Your task to perform on an android device: toggle notifications settings in the gmail app Image 0: 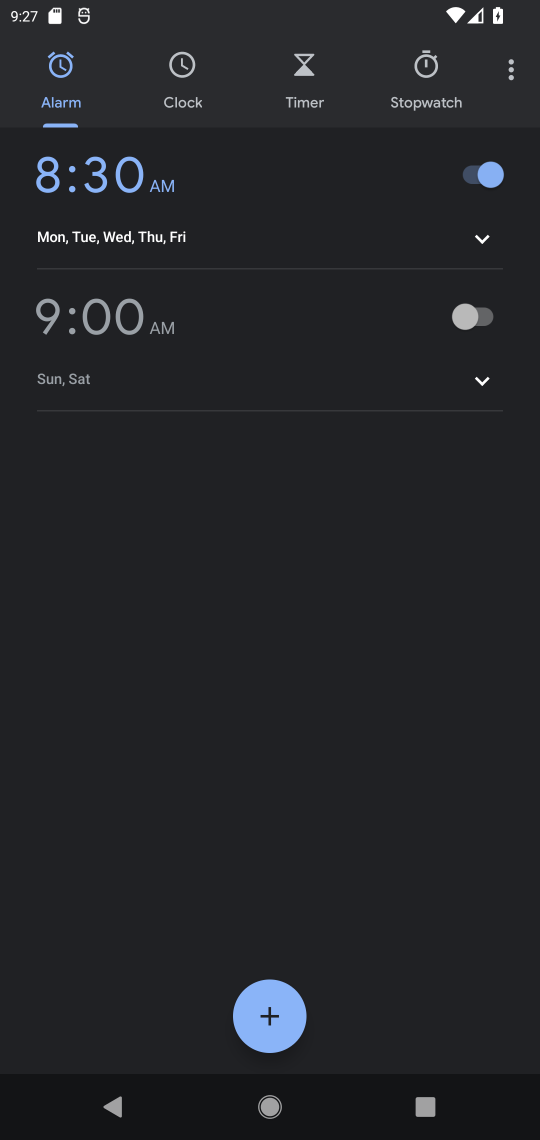
Step 0: press home button
Your task to perform on an android device: toggle notifications settings in the gmail app Image 1: 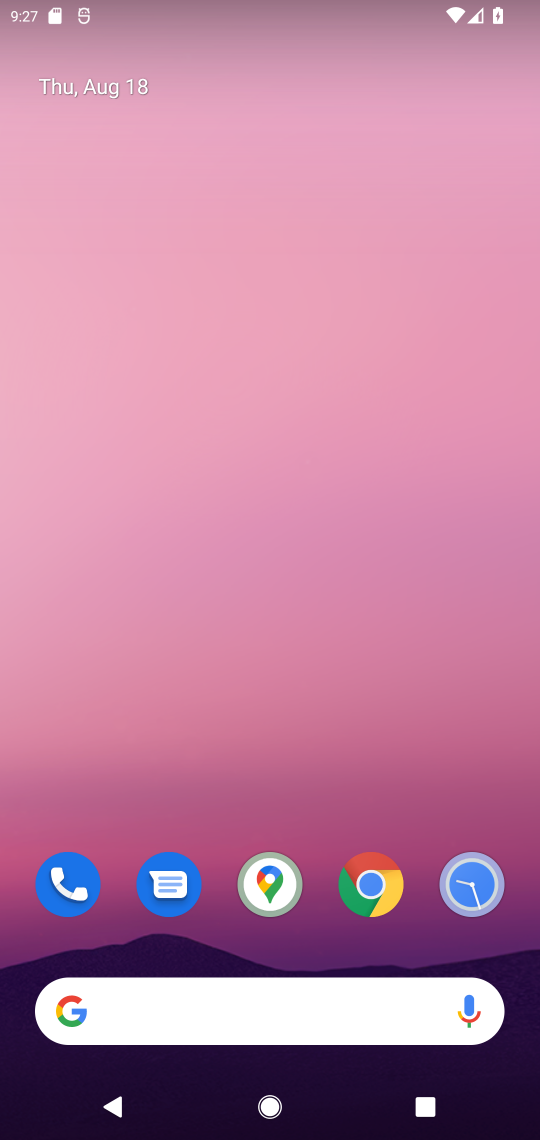
Step 1: drag from (201, 942) to (436, 91)
Your task to perform on an android device: toggle notifications settings in the gmail app Image 2: 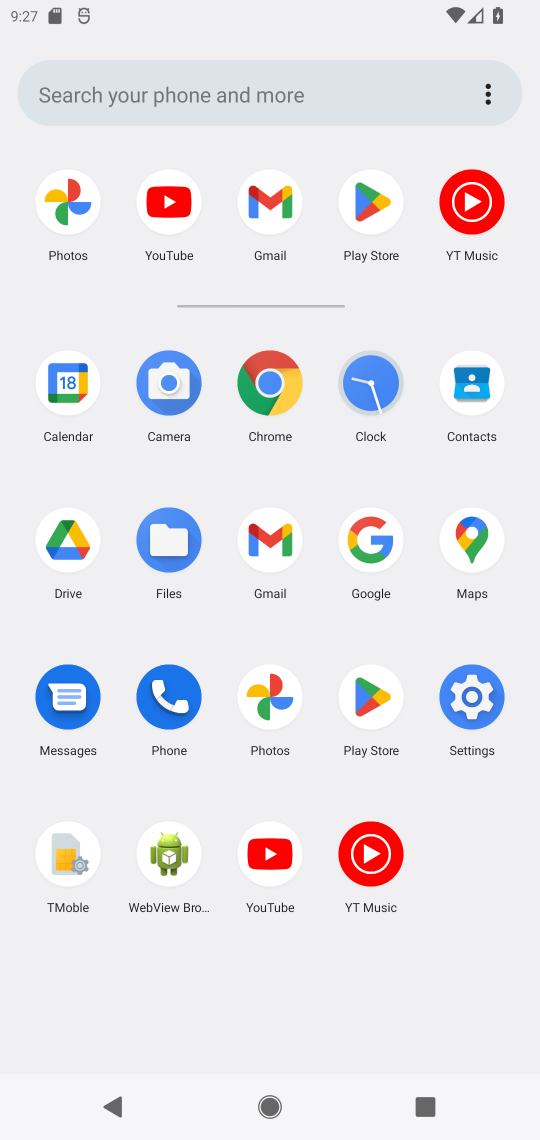
Step 2: click (485, 713)
Your task to perform on an android device: toggle notifications settings in the gmail app Image 3: 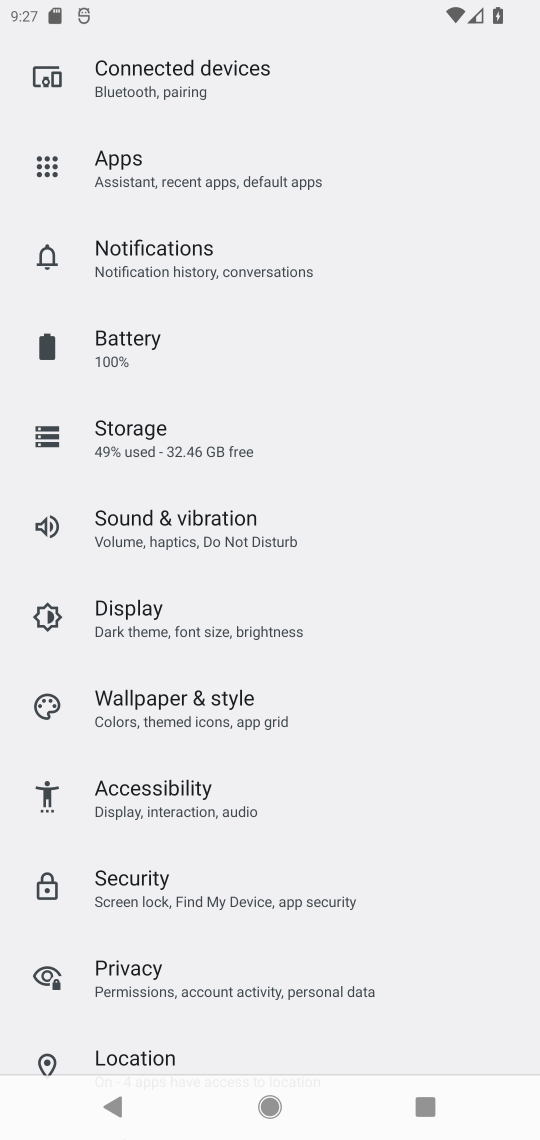
Step 3: click (206, 259)
Your task to perform on an android device: toggle notifications settings in the gmail app Image 4: 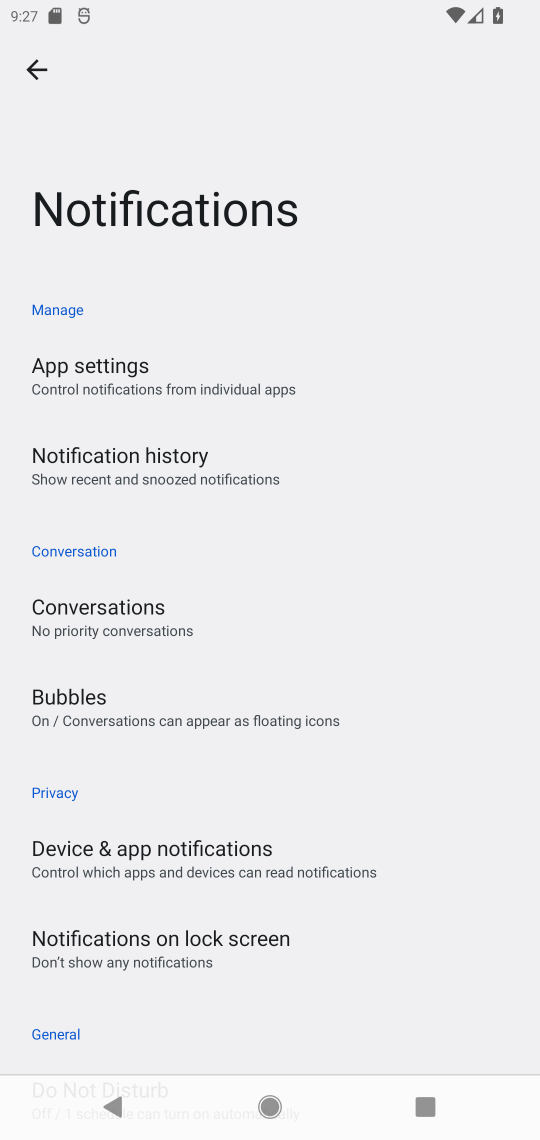
Step 4: drag from (179, 995) to (303, 164)
Your task to perform on an android device: toggle notifications settings in the gmail app Image 5: 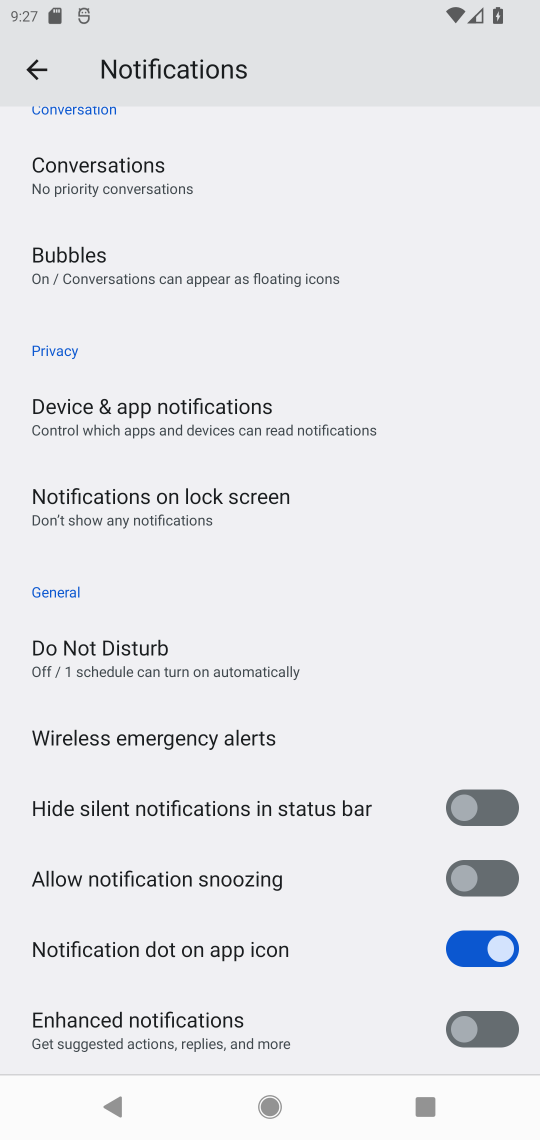
Step 5: drag from (312, 987) to (443, 54)
Your task to perform on an android device: toggle notifications settings in the gmail app Image 6: 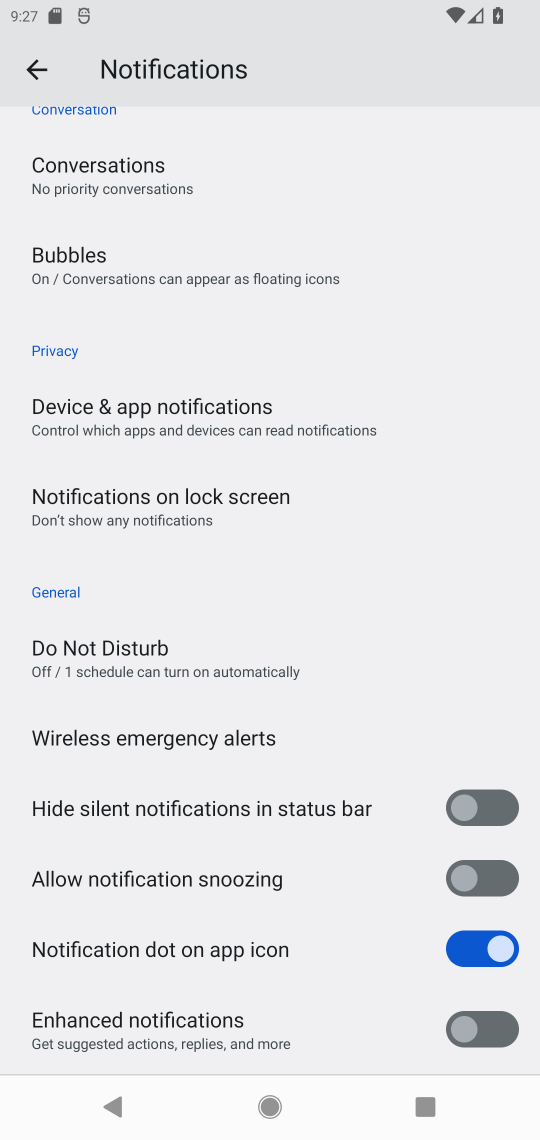
Step 6: drag from (292, 909) to (118, 56)
Your task to perform on an android device: toggle notifications settings in the gmail app Image 7: 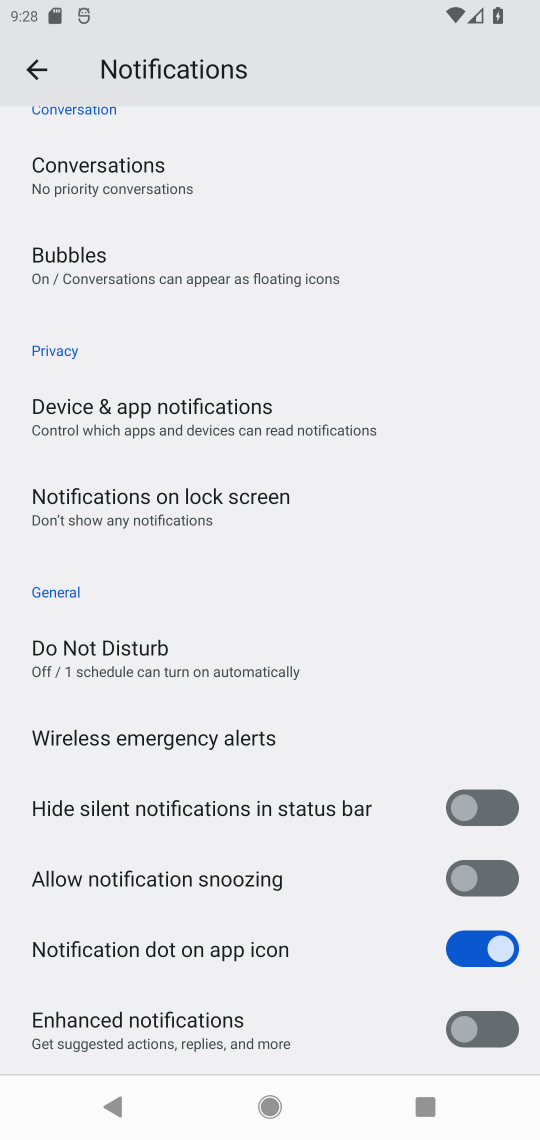
Step 7: click (146, 508)
Your task to perform on an android device: toggle notifications settings in the gmail app Image 8: 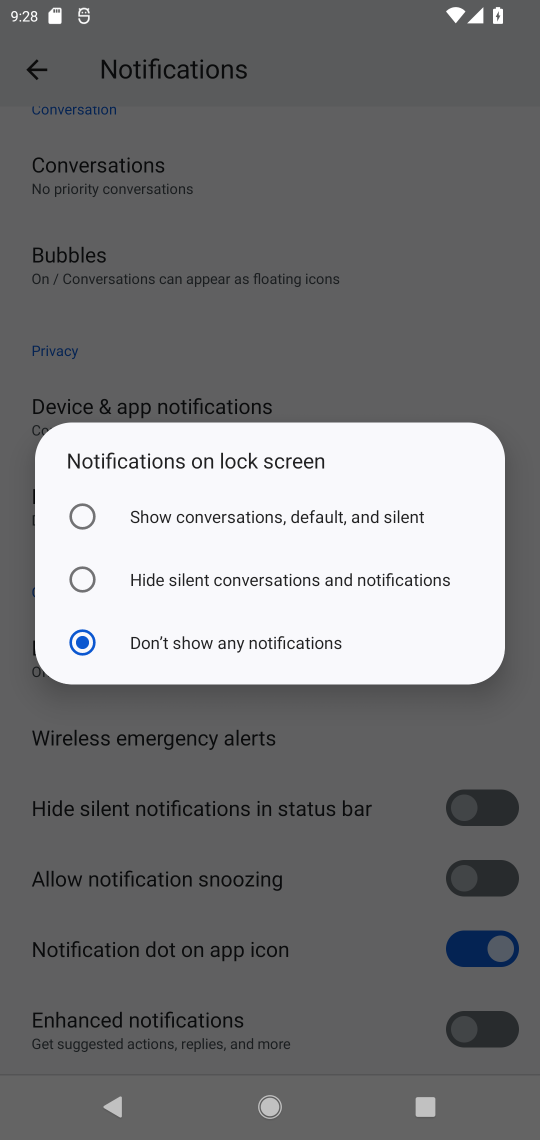
Step 8: click (229, 702)
Your task to perform on an android device: toggle notifications settings in the gmail app Image 9: 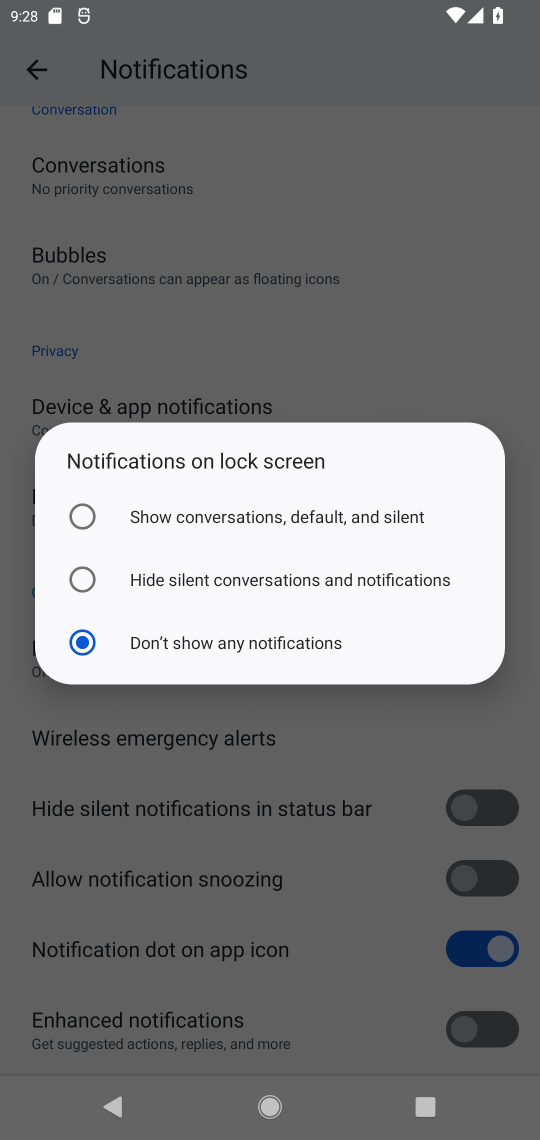
Step 9: click (388, 757)
Your task to perform on an android device: toggle notifications settings in the gmail app Image 10: 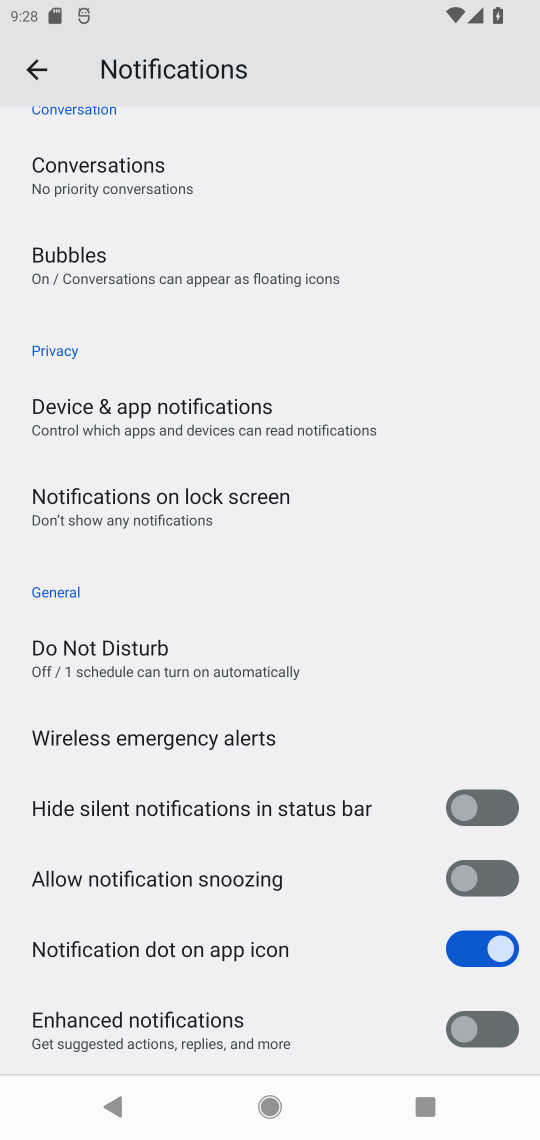
Step 10: click (388, 757)
Your task to perform on an android device: toggle notifications settings in the gmail app Image 11: 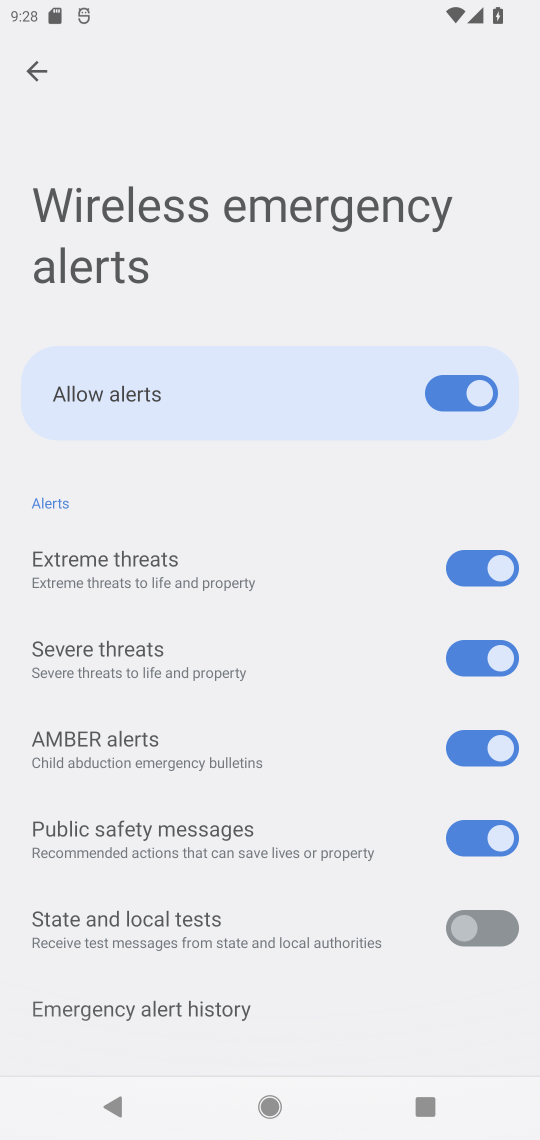
Step 11: press back button
Your task to perform on an android device: toggle notifications settings in the gmail app Image 12: 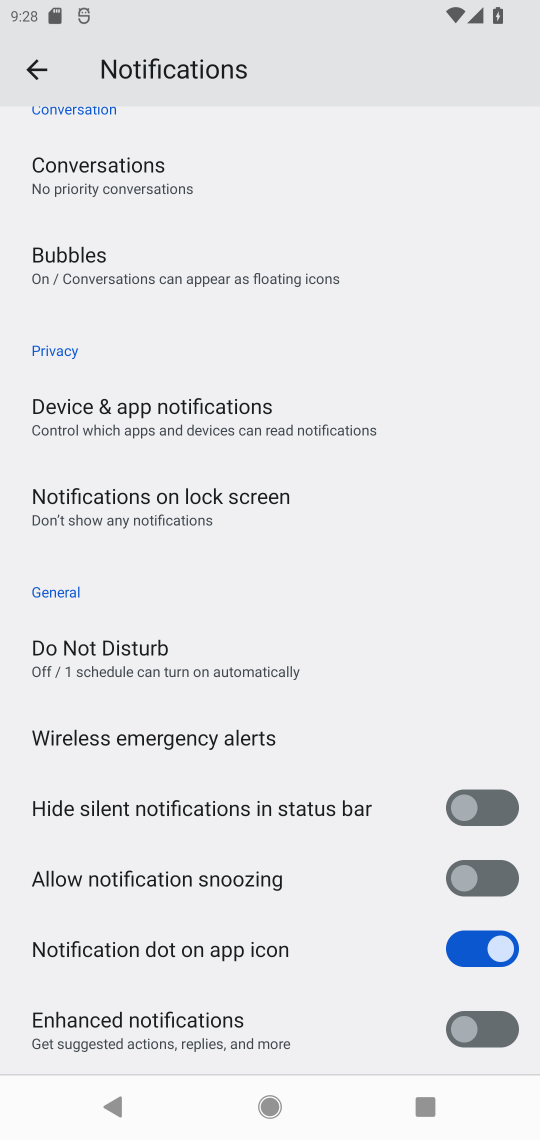
Step 12: drag from (345, 192) to (334, 1077)
Your task to perform on an android device: toggle notifications settings in the gmail app Image 13: 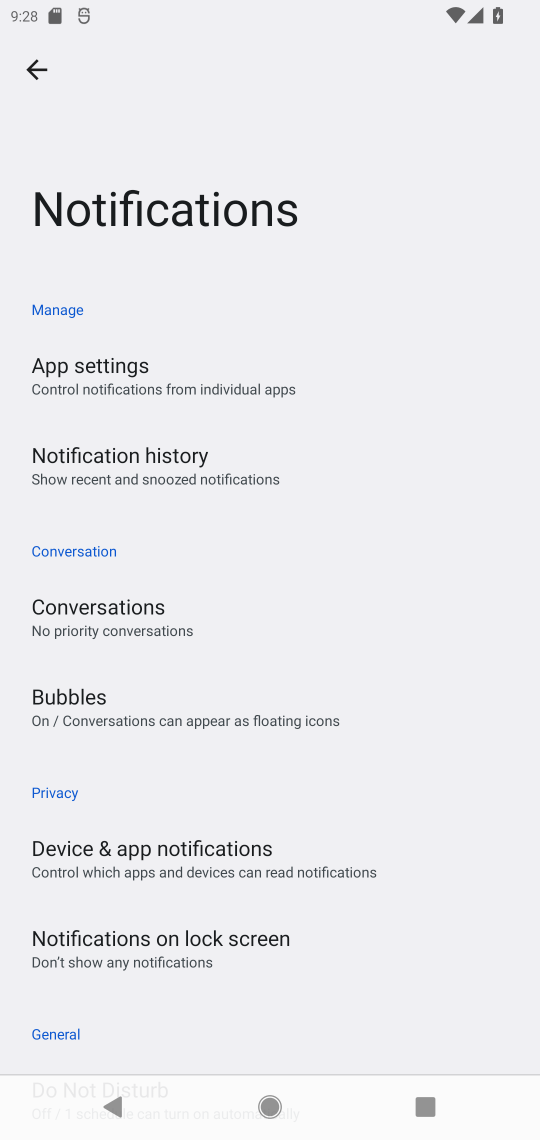
Step 13: drag from (292, 295) to (325, 661)
Your task to perform on an android device: toggle notifications settings in the gmail app Image 14: 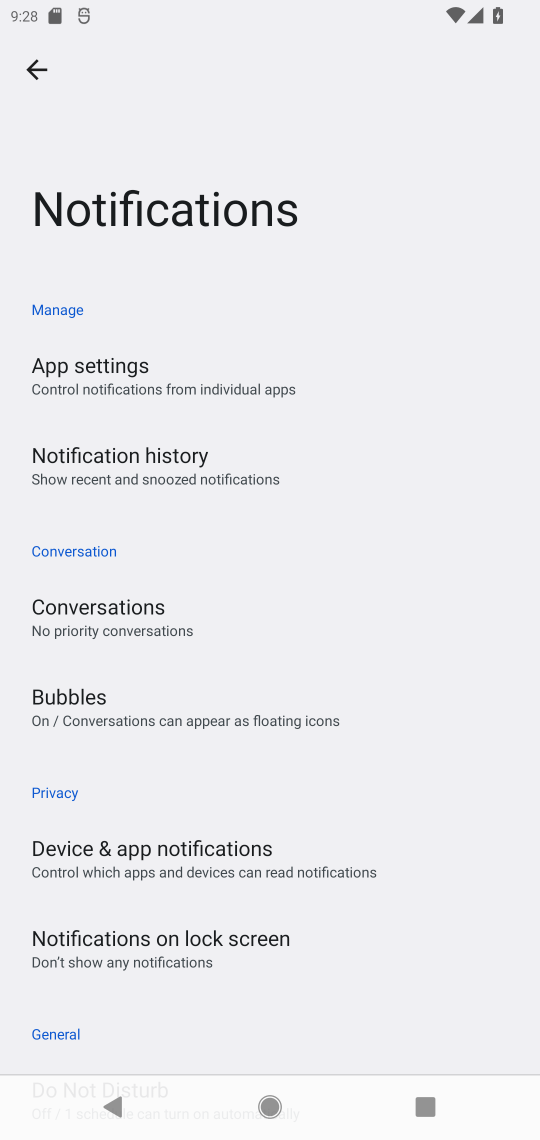
Step 14: click (145, 386)
Your task to perform on an android device: toggle notifications settings in the gmail app Image 15: 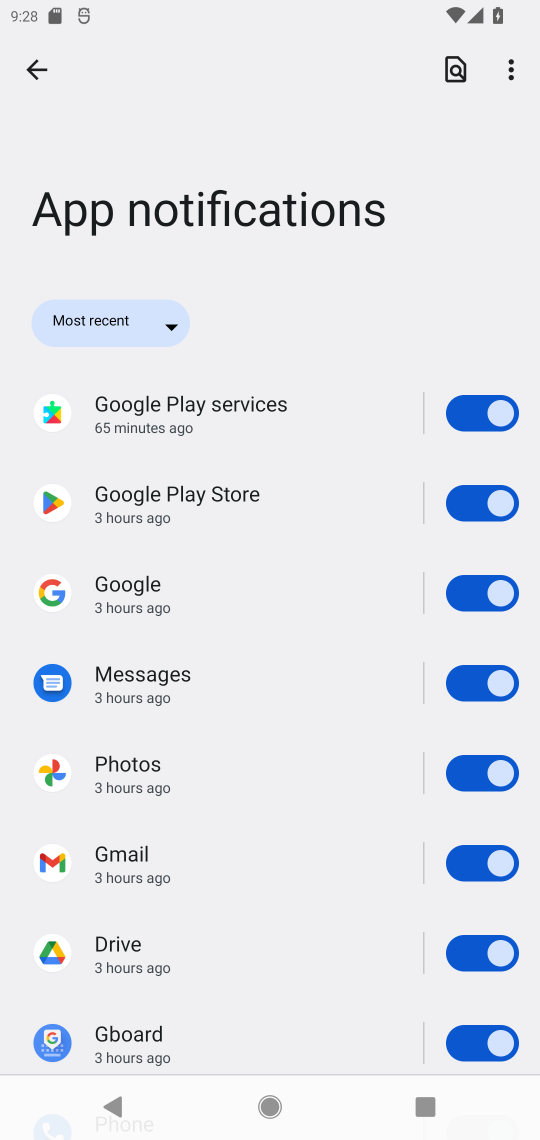
Step 15: click (489, 867)
Your task to perform on an android device: toggle notifications settings in the gmail app Image 16: 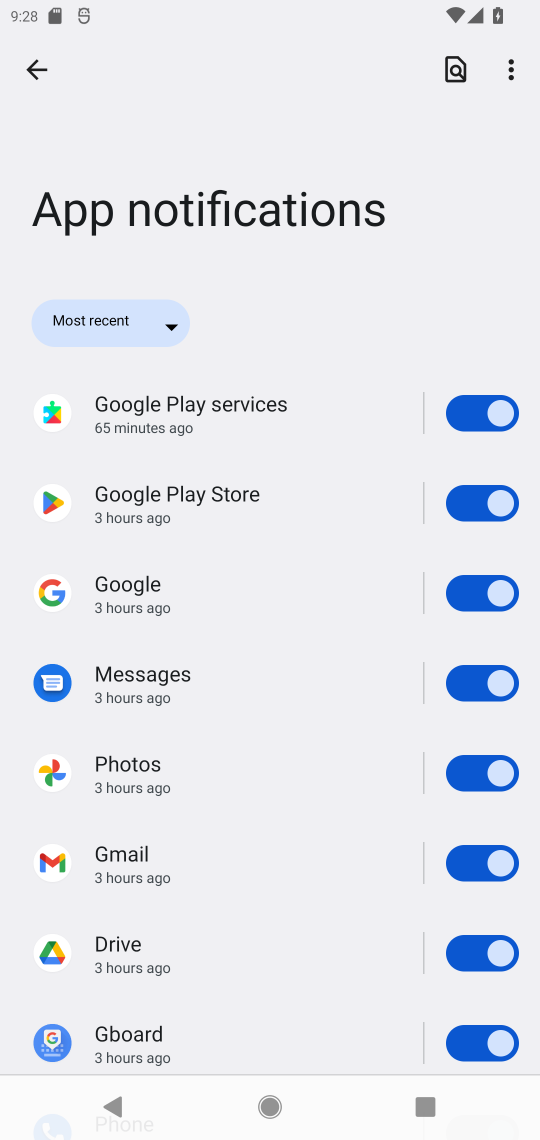
Step 16: click (489, 867)
Your task to perform on an android device: toggle notifications settings in the gmail app Image 17: 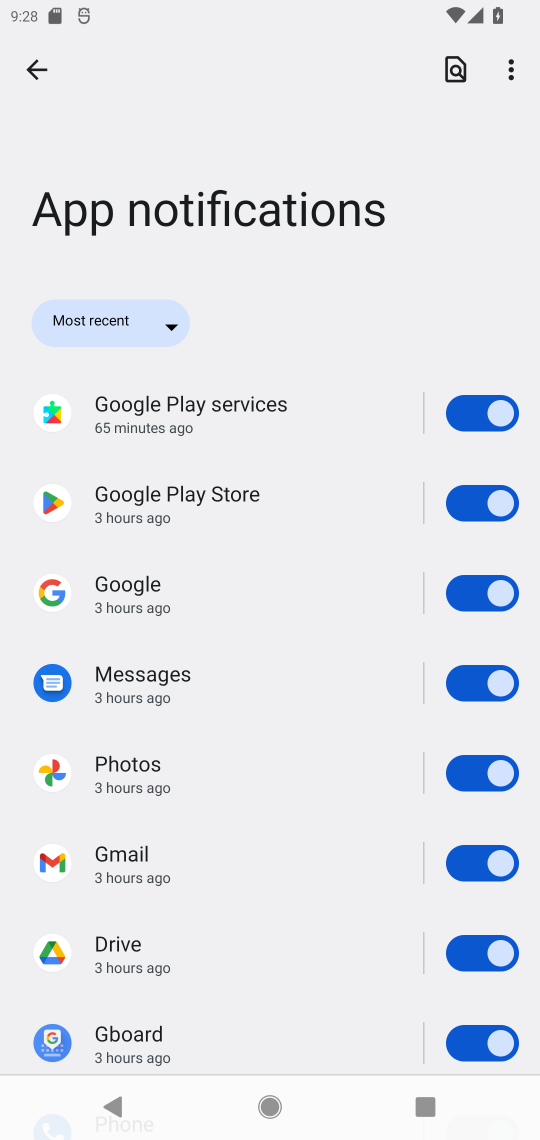
Step 17: task complete